Your task to perform on an android device: see sites visited before in the chrome app Image 0: 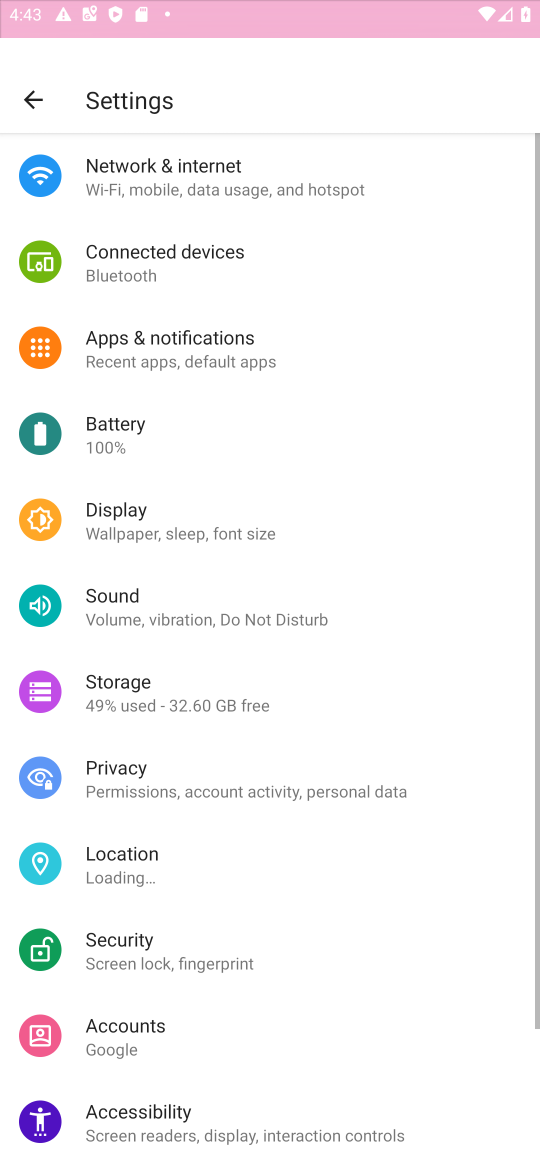
Step 0: press home button
Your task to perform on an android device: see sites visited before in the chrome app Image 1: 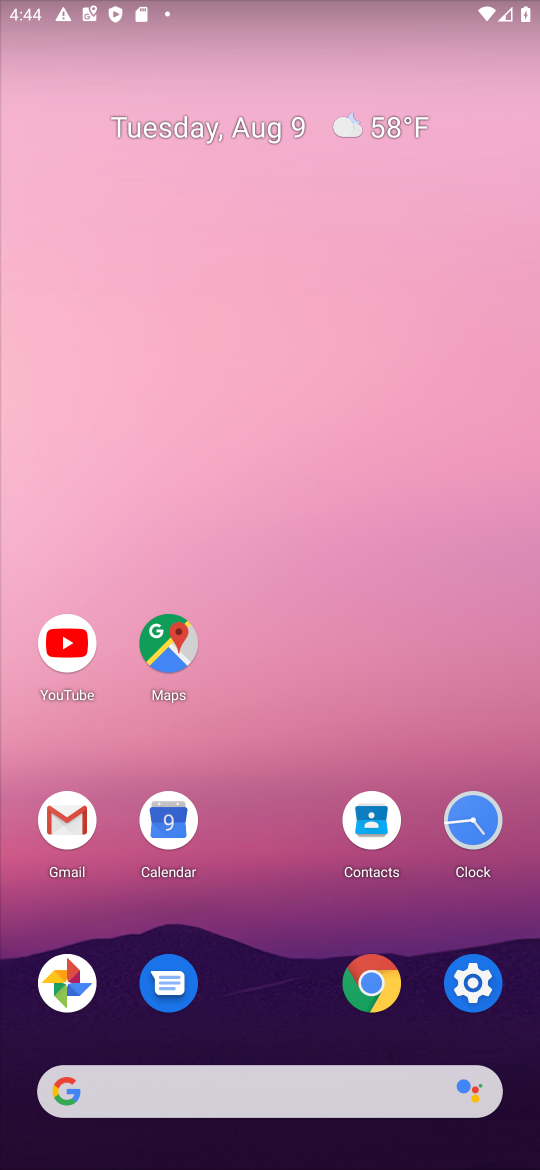
Step 1: click (374, 981)
Your task to perform on an android device: see sites visited before in the chrome app Image 2: 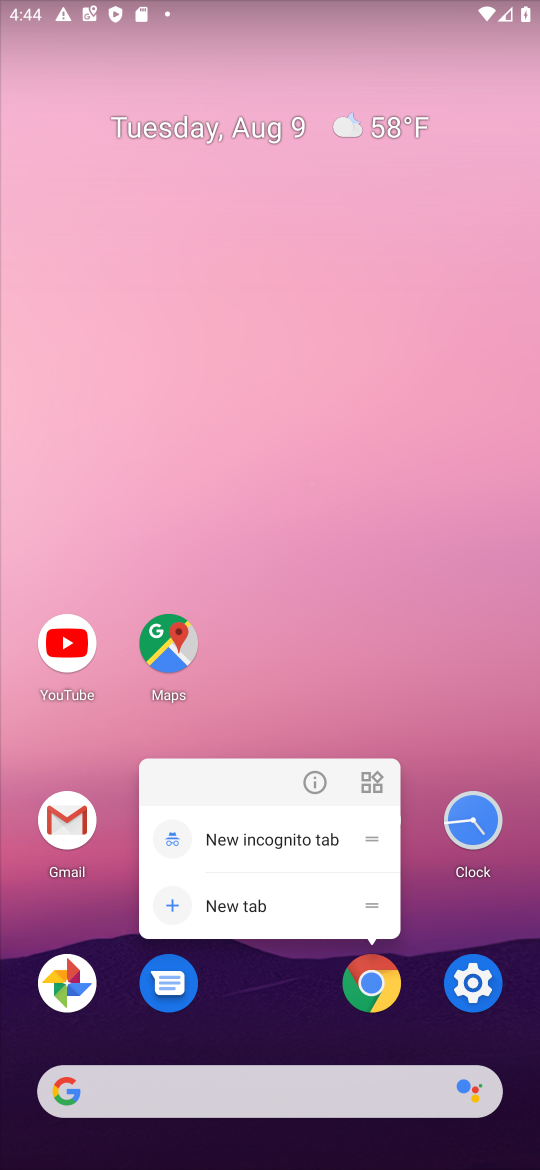
Step 2: click (374, 981)
Your task to perform on an android device: see sites visited before in the chrome app Image 3: 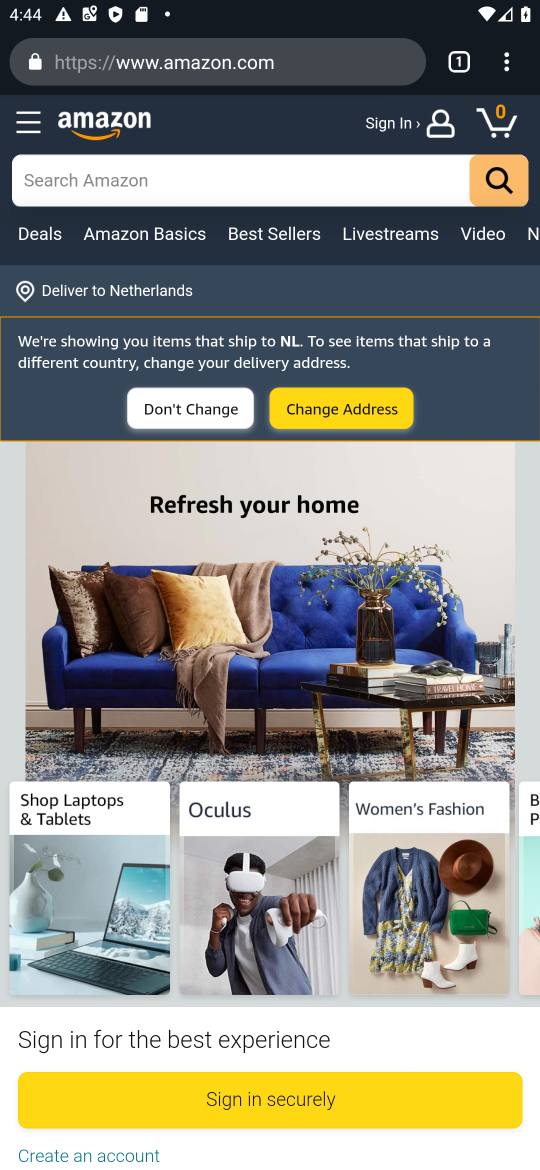
Step 3: click (506, 62)
Your task to perform on an android device: see sites visited before in the chrome app Image 4: 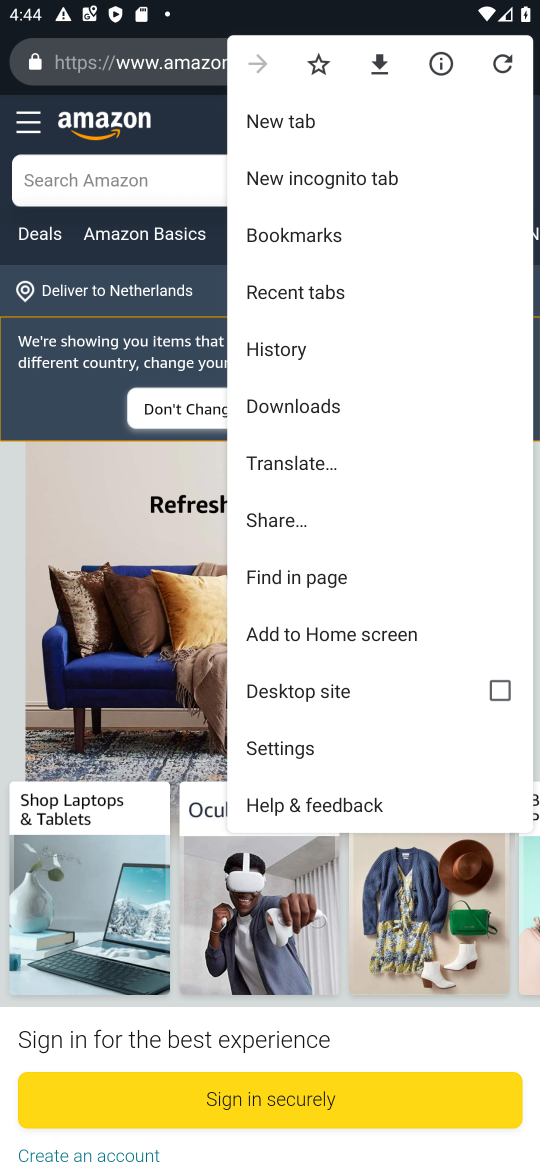
Step 4: click (263, 344)
Your task to perform on an android device: see sites visited before in the chrome app Image 5: 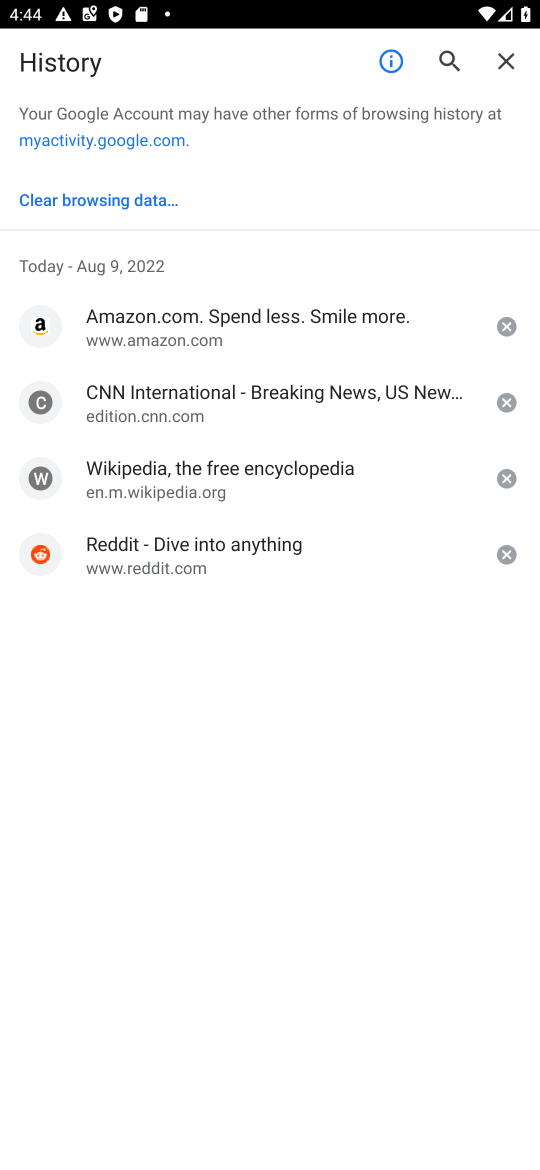
Step 5: task complete